Your task to perform on an android device: Open Google Chrome and open the bookmarks view Image 0: 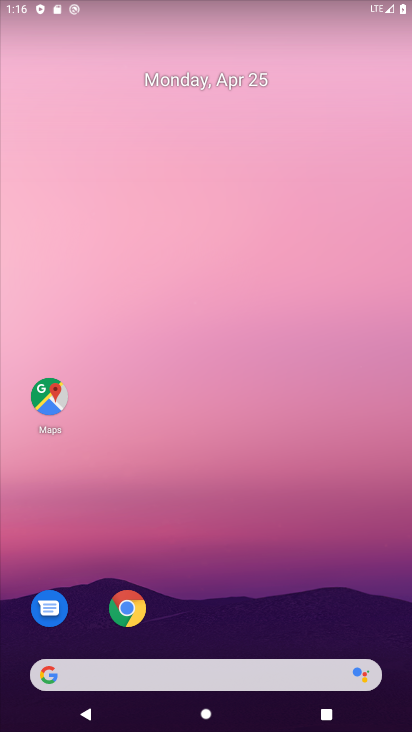
Step 0: click (123, 612)
Your task to perform on an android device: Open Google Chrome and open the bookmarks view Image 1: 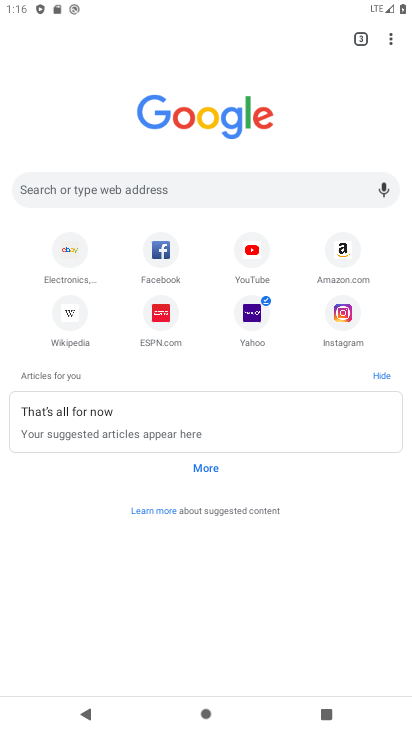
Step 1: click (396, 41)
Your task to perform on an android device: Open Google Chrome and open the bookmarks view Image 2: 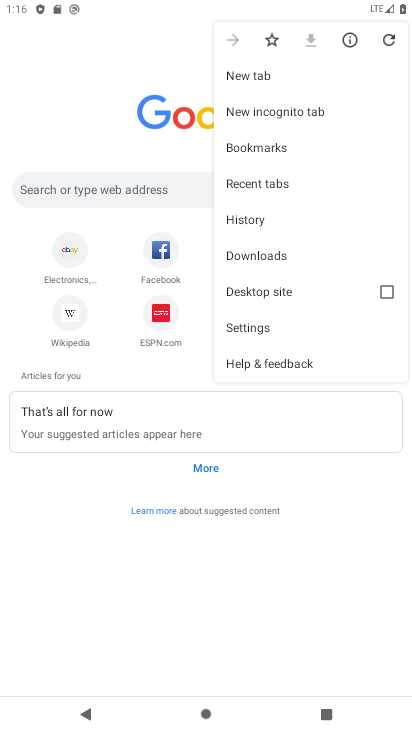
Step 2: click (290, 153)
Your task to perform on an android device: Open Google Chrome and open the bookmarks view Image 3: 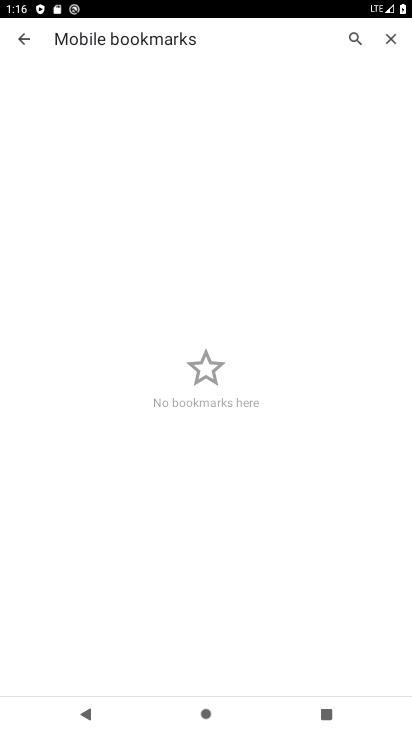
Step 3: task complete